Your task to perform on an android device: Go to eBay Image 0: 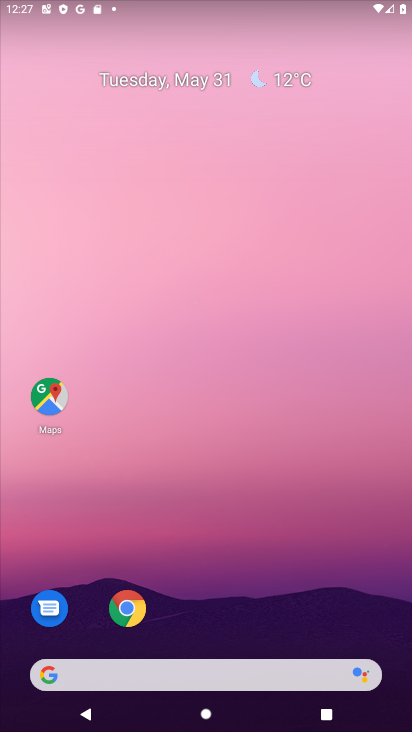
Step 0: drag from (236, 616) to (255, 4)
Your task to perform on an android device: Go to eBay Image 1: 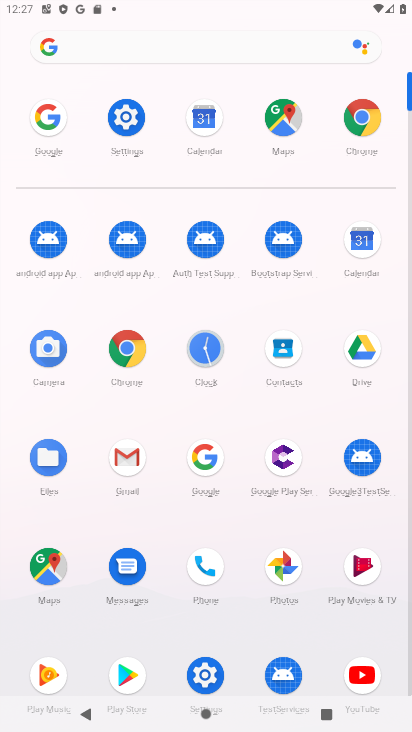
Step 1: click (208, 469)
Your task to perform on an android device: Go to eBay Image 2: 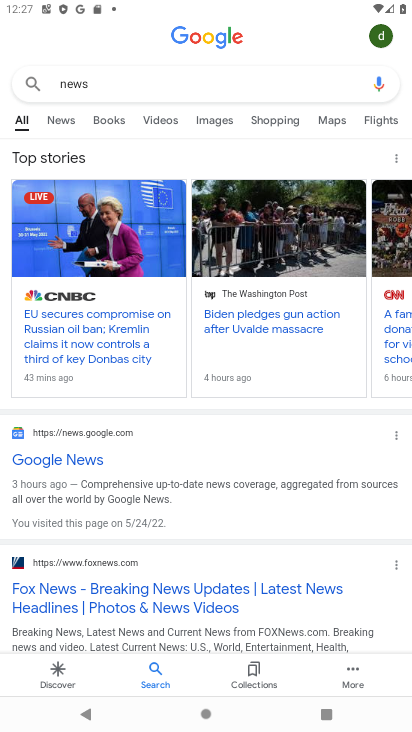
Step 2: click (186, 91)
Your task to perform on an android device: Go to eBay Image 3: 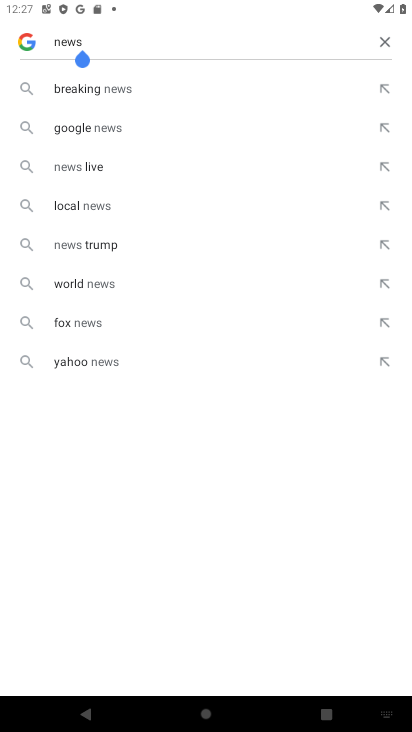
Step 3: click (381, 39)
Your task to perform on an android device: Go to eBay Image 4: 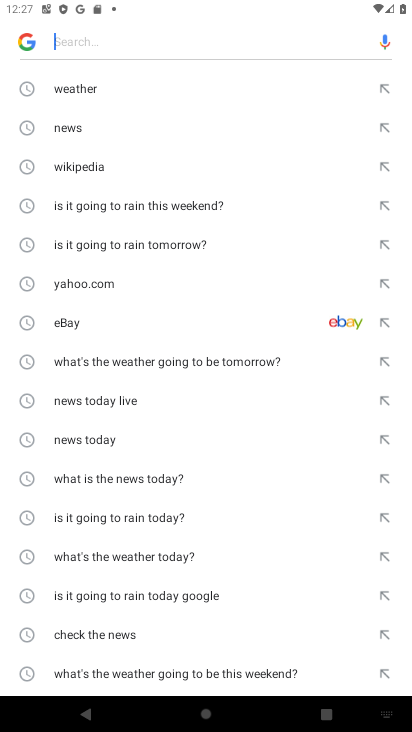
Step 4: click (92, 314)
Your task to perform on an android device: Go to eBay Image 5: 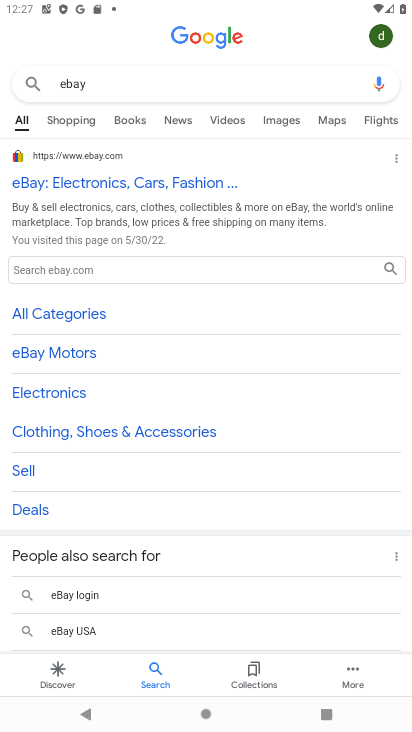
Step 5: task complete